Your task to perform on an android device: Go to network settings Image 0: 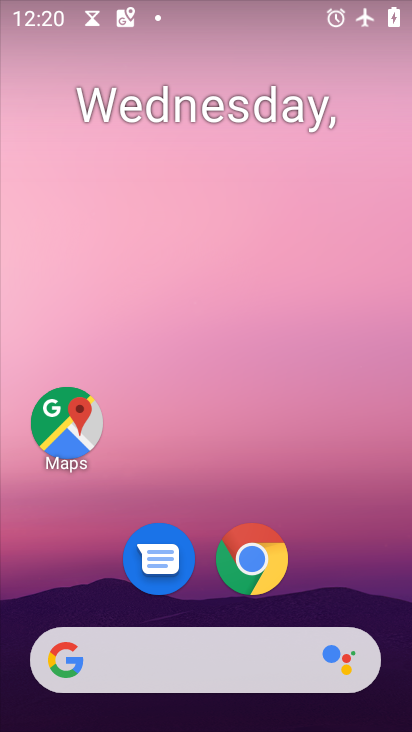
Step 0: drag from (307, 544) to (318, 68)
Your task to perform on an android device: Go to network settings Image 1: 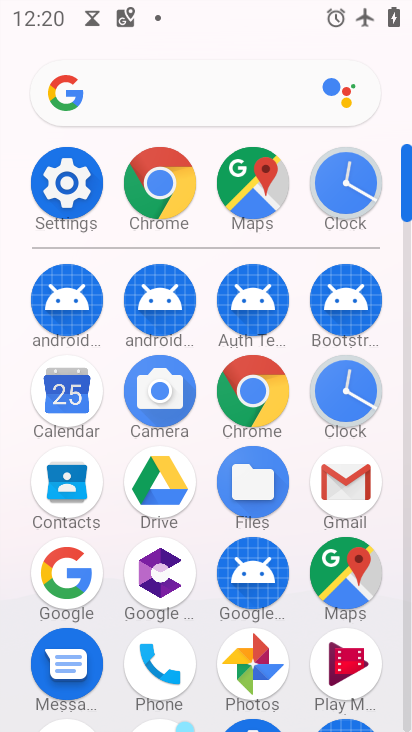
Step 1: click (70, 194)
Your task to perform on an android device: Go to network settings Image 2: 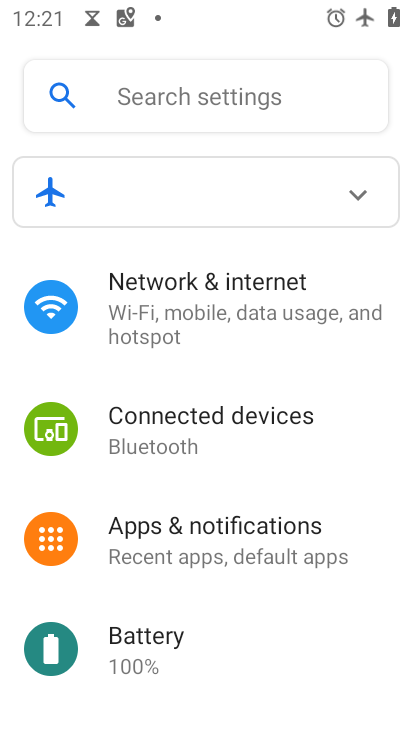
Step 2: click (243, 296)
Your task to perform on an android device: Go to network settings Image 3: 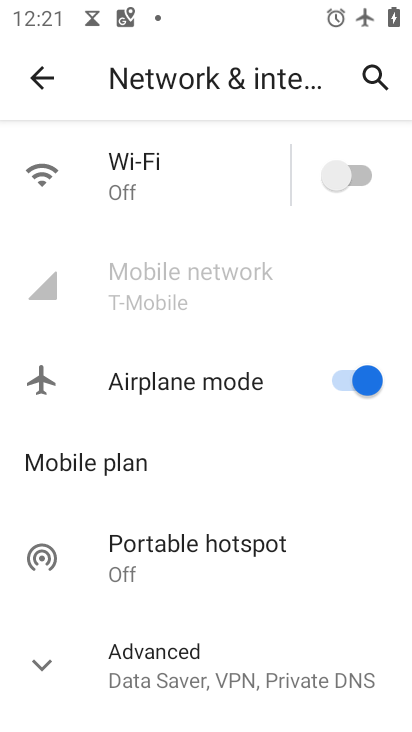
Step 3: task complete